Your task to perform on an android device: turn off priority inbox in the gmail app Image 0: 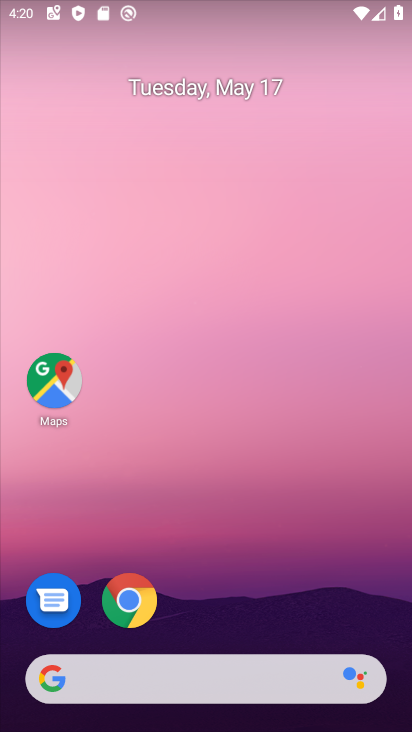
Step 0: drag from (244, 621) to (306, 60)
Your task to perform on an android device: turn off priority inbox in the gmail app Image 1: 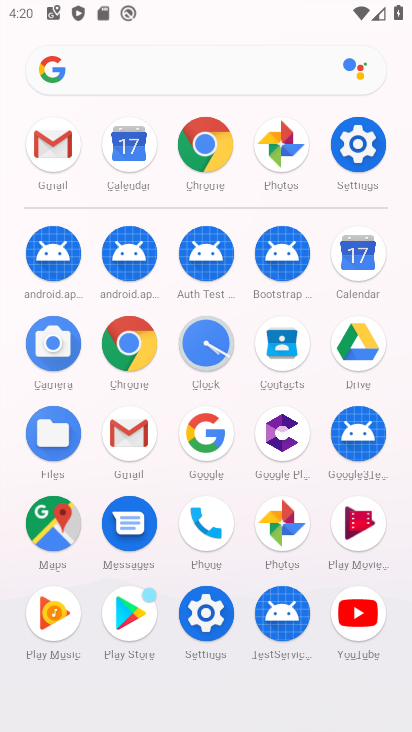
Step 1: click (143, 442)
Your task to perform on an android device: turn off priority inbox in the gmail app Image 2: 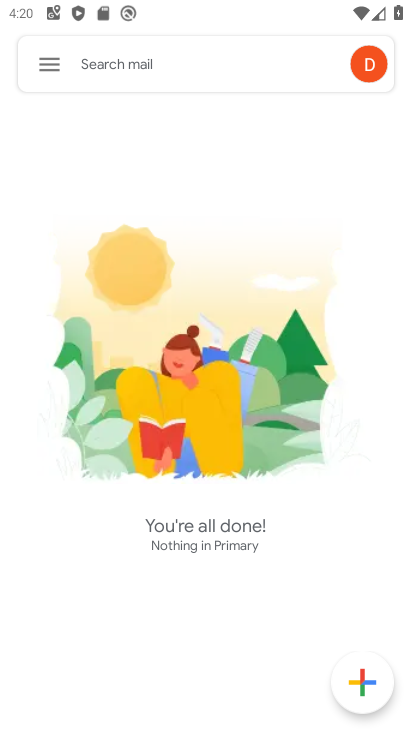
Step 2: click (56, 61)
Your task to perform on an android device: turn off priority inbox in the gmail app Image 3: 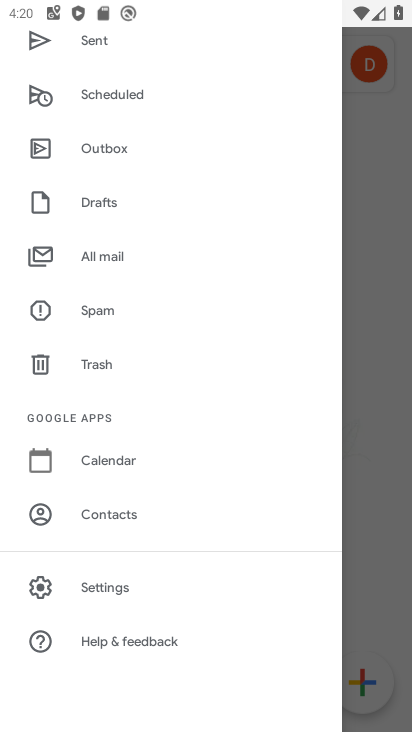
Step 3: click (111, 588)
Your task to perform on an android device: turn off priority inbox in the gmail app Image 4: 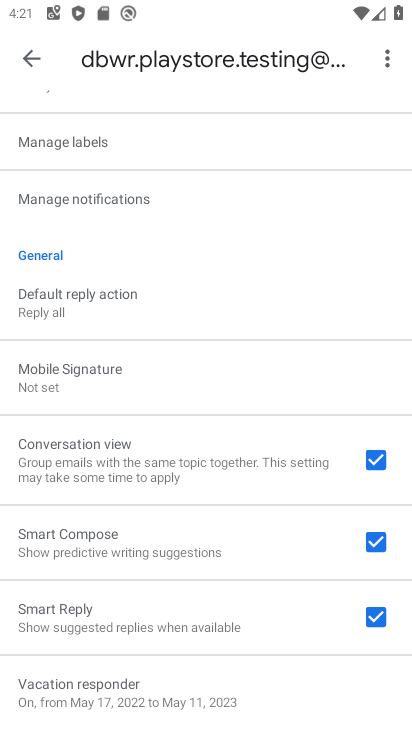
Step 4: drag from (85, 174) to (99, 705)
Your task to perform on an android device: turn off priority inbox in the gmail app Image 5: 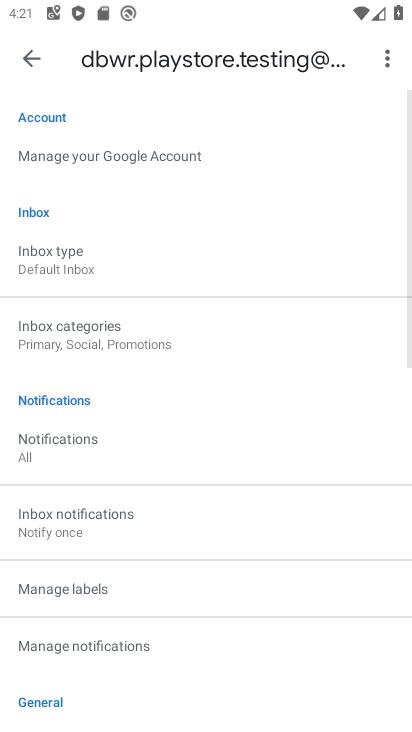
Step 5: click (69, 269)
Your task to perform on an android device: turn off priority inbox in the gmail app Image 6: 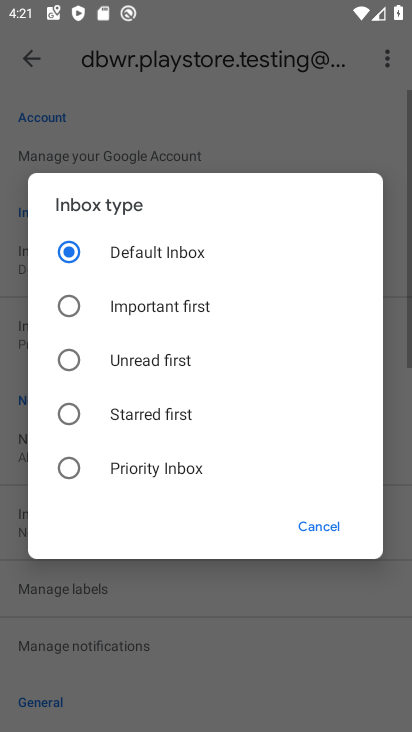
Step 6: click (63, 303)
Your task to perform on an android device: turn off priority inbox in the gmail app Image 7: 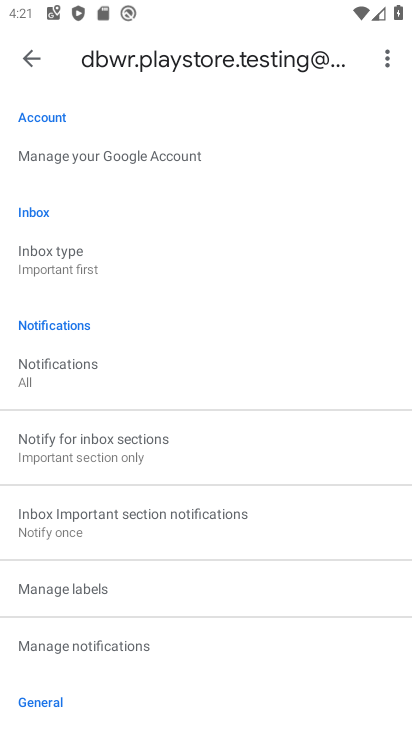
Step 7: task complete